Your task to perform on an android device: turn on translation in the chrome app Image 0: 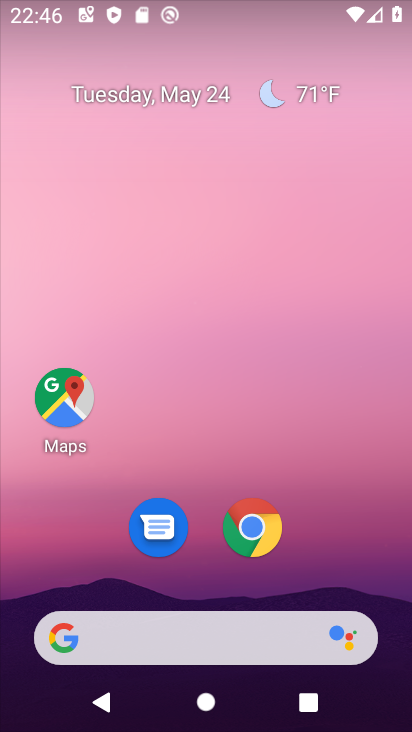
Step 0: click (246, 530)
Your task to perform on an android device: turn on translation in the chrome app Image 1: 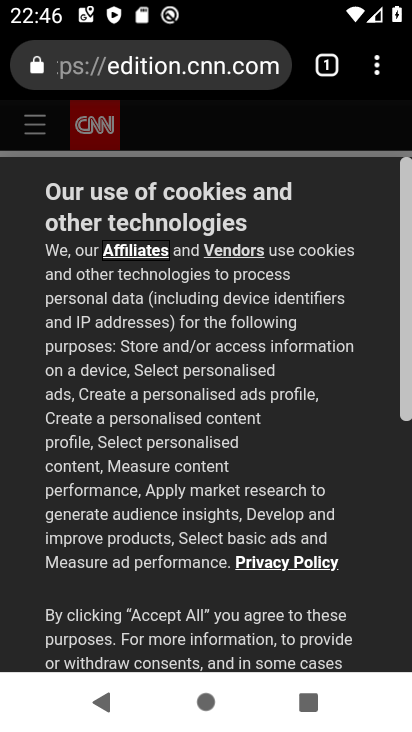
Step 1: click (376, 62)
Your task to perform on an android device: turn on translation in the chrome app Image 2: 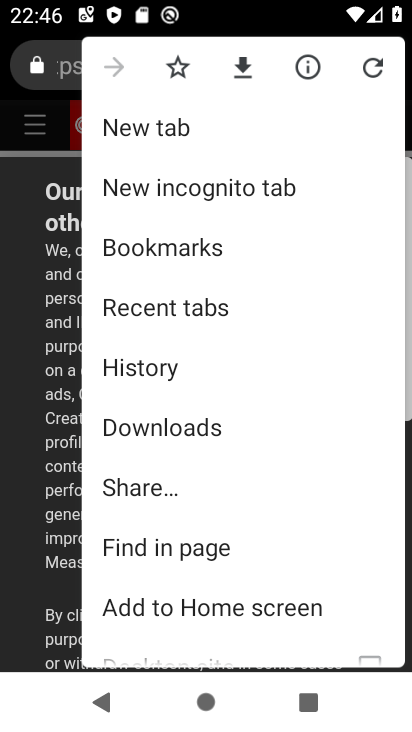
Step 2: drag from (209, 605) to (223, 312)
Your task to perform on an android device: turn on translation in the chrome app Image 3: 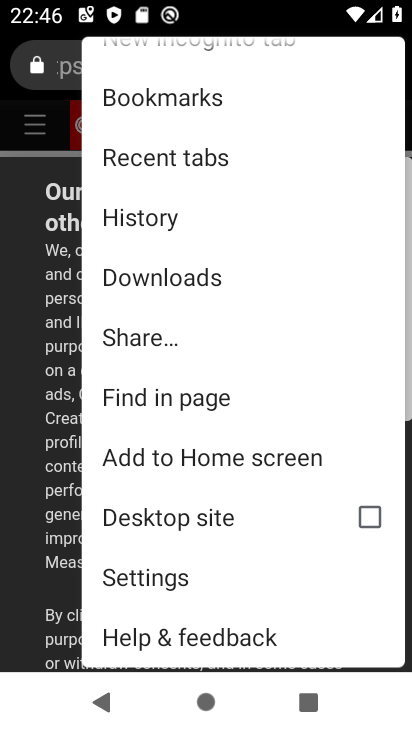
Step 3: click (204, 575)
Your task to perform on an android device: turn on translation in the chrome app Image 4: 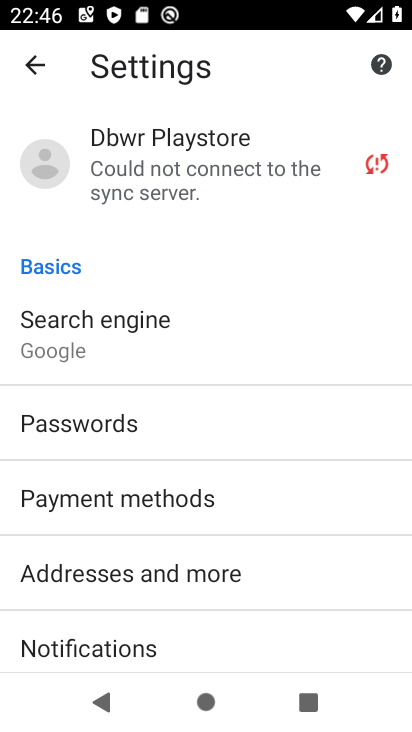
Step 4: drag from (214, 660) to (159, 346)
Your task to perform on an android device: turn on translation in the chrome app Image 5: 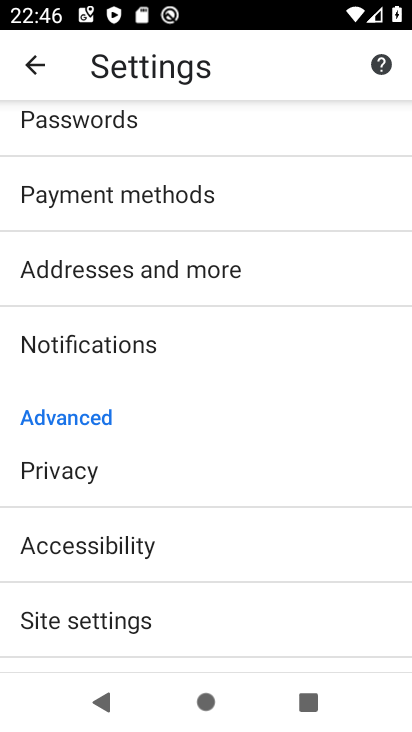
Step 5: drag from (122, 618) to (90, 251)
Your task to perform on an android device: turn on translation in the chrome app Image 6: 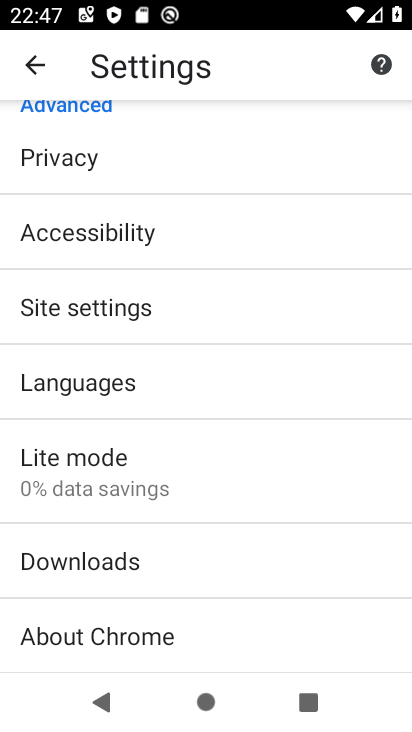
Step 6: click (92, 377)
Your task to perform on an android device: turn on translation in the chrome app Image 7: 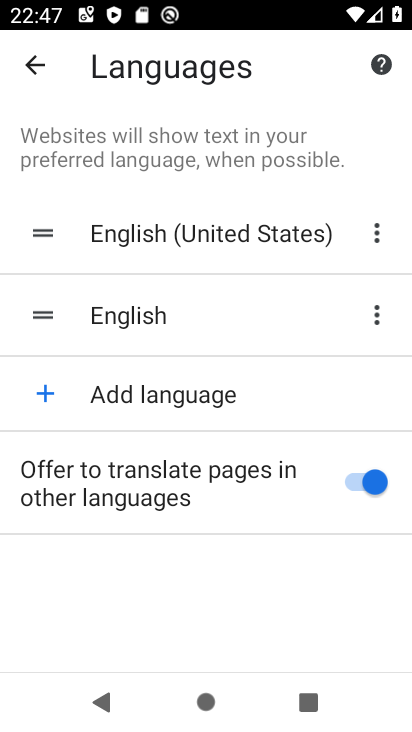
Step 7: task complete